Your task to perform on an android device: toggle airplane mode Image 0: 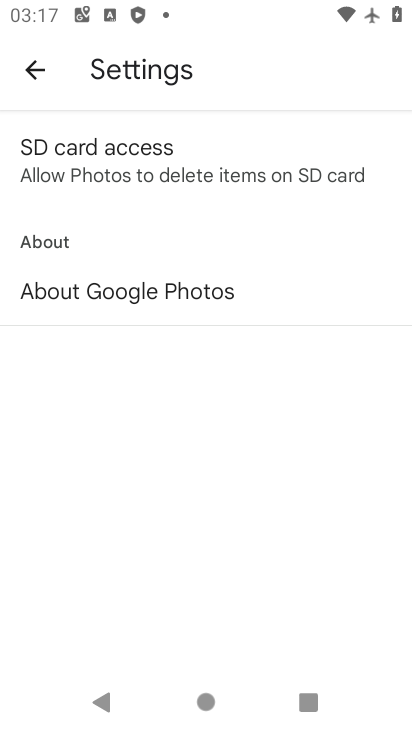
Step 0: press home button
Your task to perform on an android device: toggle airplane mode Image 1: 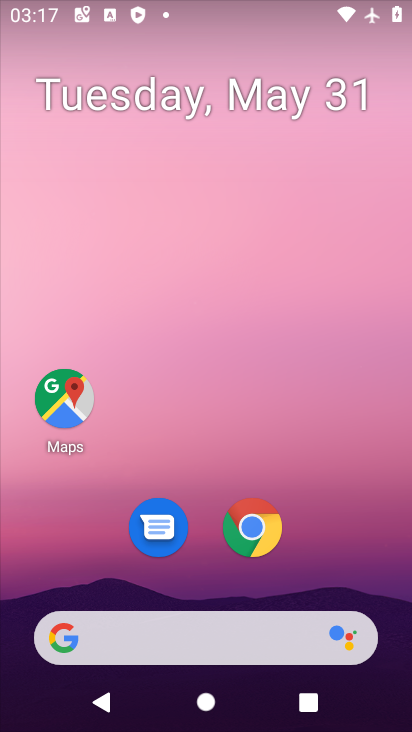
Step 1: drag from (394, 628) to (335, 87)
Your task to perform on an android device: toggle airplane mode Image 2: 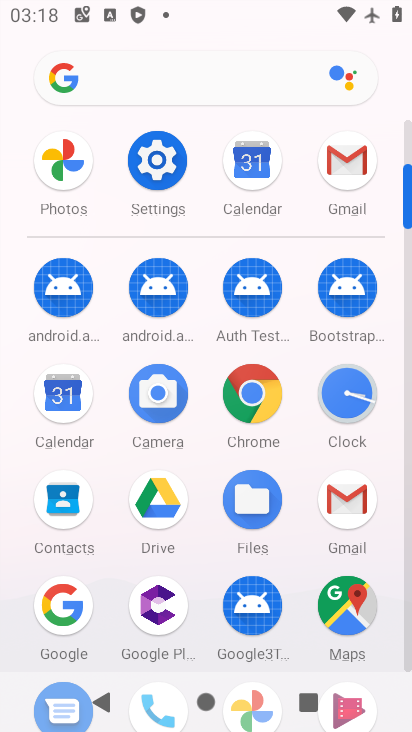
Step 2: click (408, 657)
Your task to perform on an android device: toggle airplane mode Image 3: 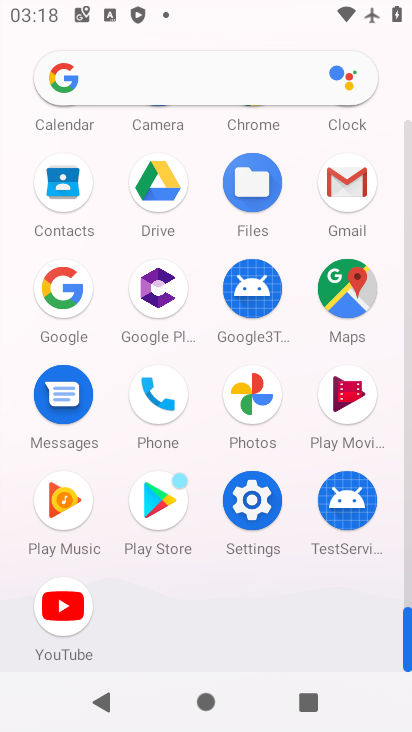
Step 3: click (252, 499)
Your task to perform on an android device: toggle airplane mode Image 4: 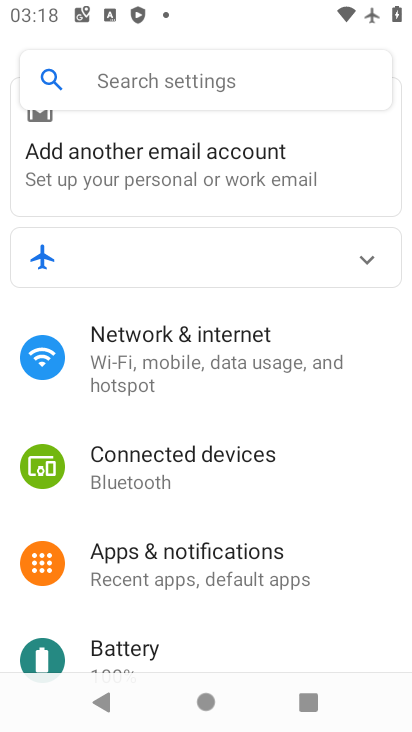
Step 4: click (156, 354)
Your task to perform on an android device: toggle airplane mode Image 5: 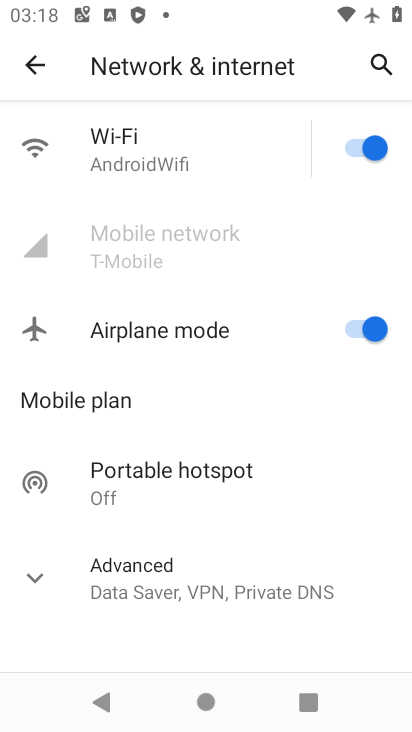
Step 5: click (346, 331)
Your task to perform on an android device: toggle airplane mode Image 6: 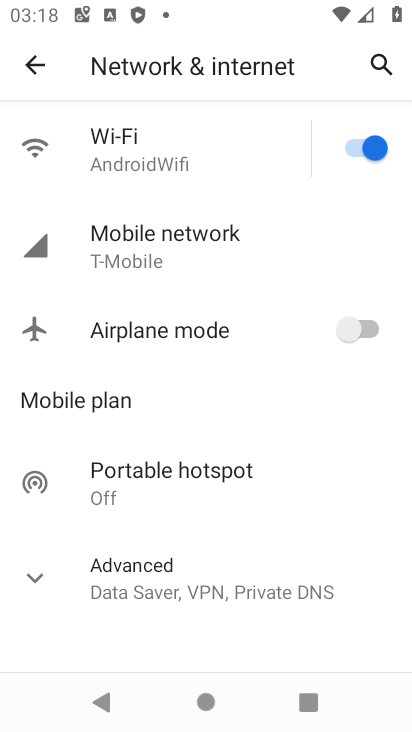
Step 6: task complete